Your task to perform on an android device: turn vacation reply on in the gmail app Image 0: 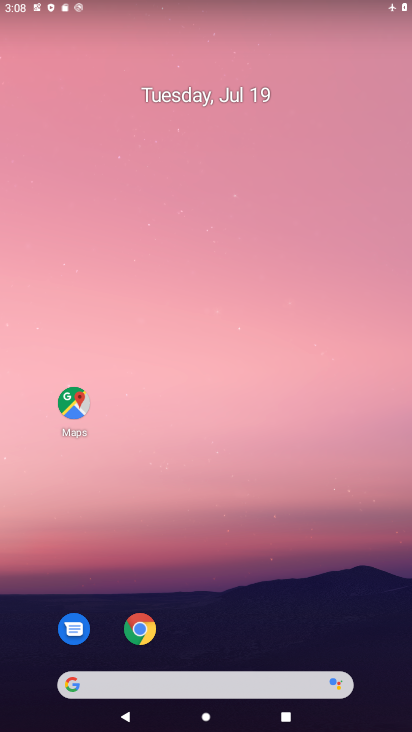
Step 0: drag from (182, 669) to (153, 179)
Your task to perform on an android device: turn vacation reply on in the gmail app Image 1: 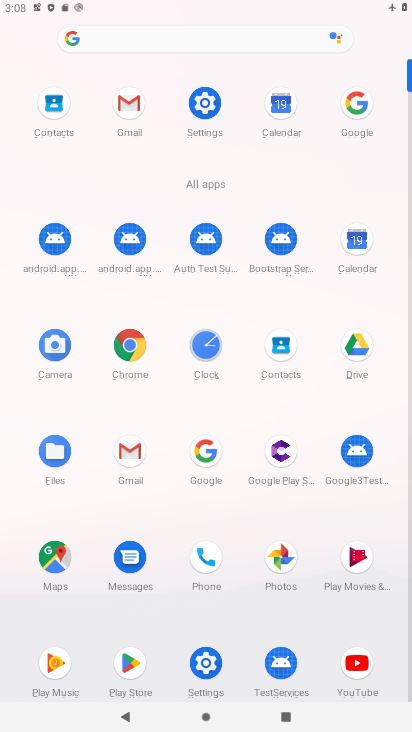
Step 1: click (133, 464)
Your task to perform on an android device: turn vacation reply on in the gmail app Image 2: 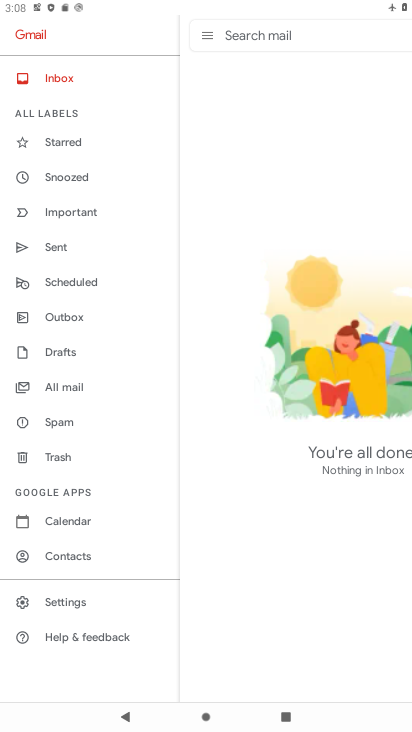
Step 2: click (67, 600)
Your task to perform on an android device: turn vacation reply on in the gmail app Image 3: 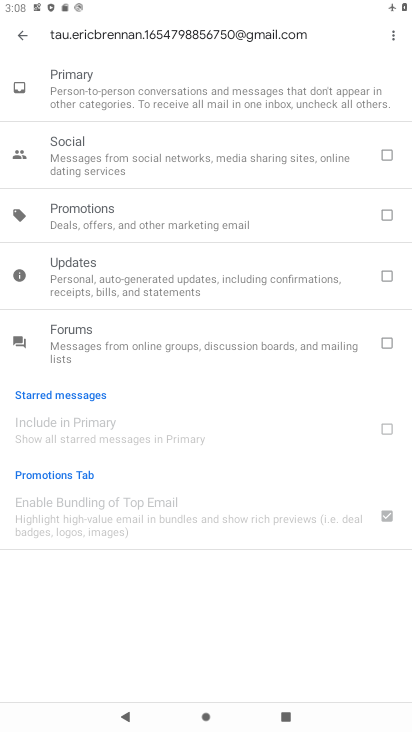
Step 3: click (29, 33)
Your task to perform on an android device: turn vacation reply on in the gmail app Image 4: 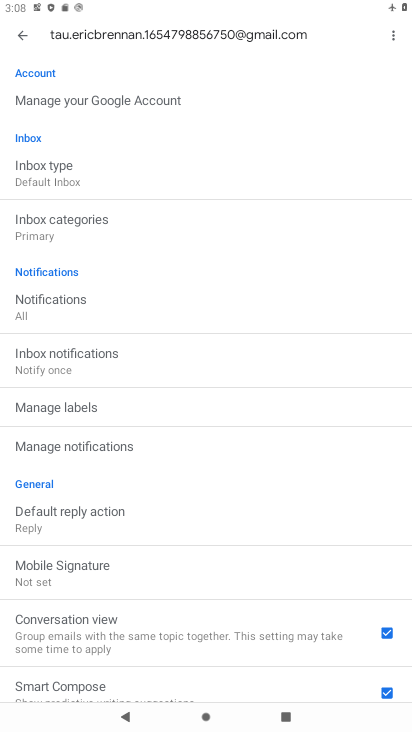
Step 4: drag from (171, 516) to (148, 226)
Your task to perform on an android device: turn vacation reply on in the gmail app Image 5: 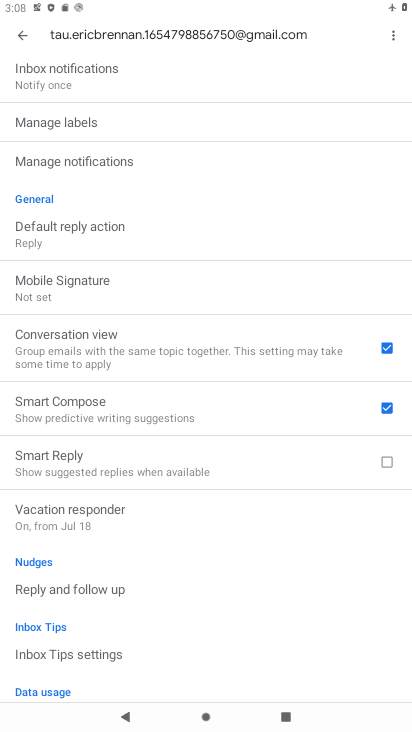
Step 5: click (166, 514)
Your task to perform on an android device: turn vacation reply on in the gmail app Image 6: 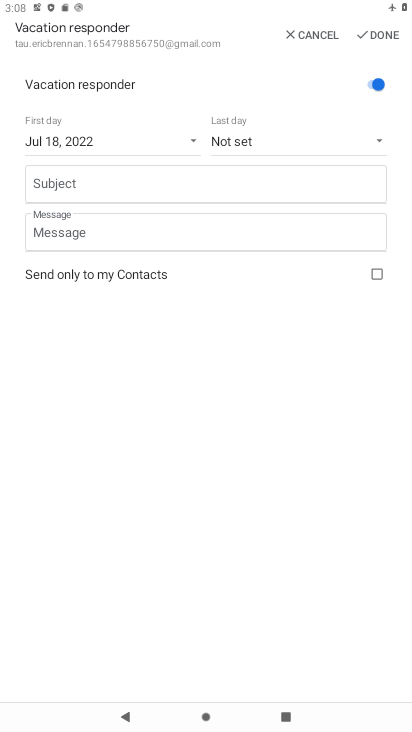
Step 6: click (387, 41)
Your task to perform on an android device: turn vacation reply on in the gmail app Image 7: 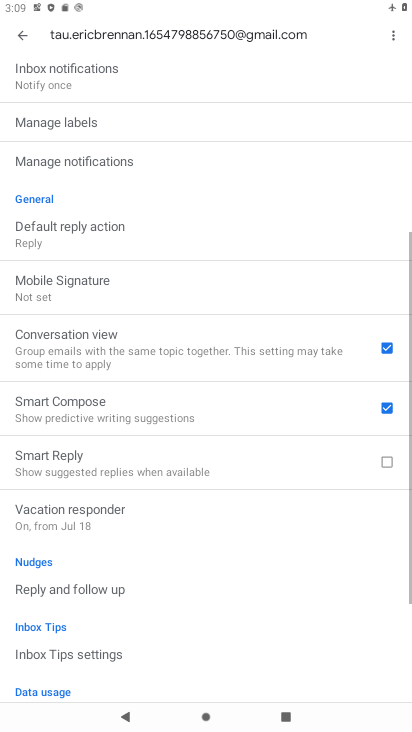
Step 7: task complete